Your task to perform on an android device: What's on my calendar tomorrow? Image 0: 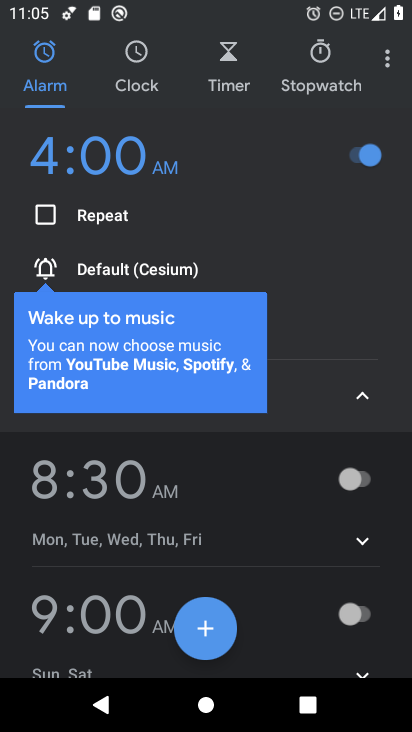
Step 0: press home button
Your task to perform on an android device: What's on my calendar tomorrow? Image 1: 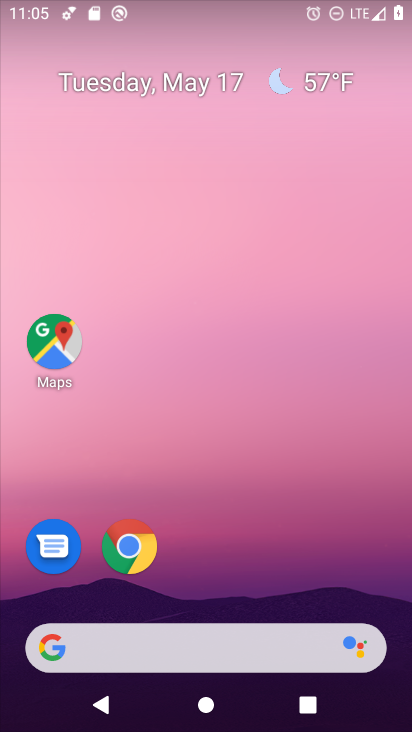
Step 1: drag from (260, 571) to (260, 0)
Your task to perform on an android device: What's on my calendar tomorrow? Image 2: 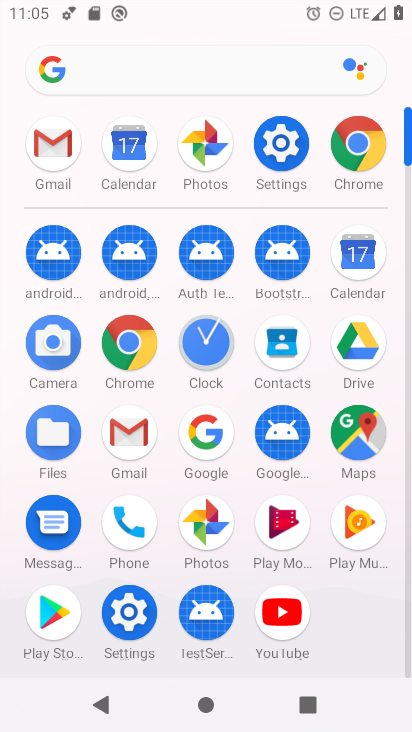
Step 2: click (116, 151)
Your task to perform on an android device: What's on my calendar tomorrow? Image 3: 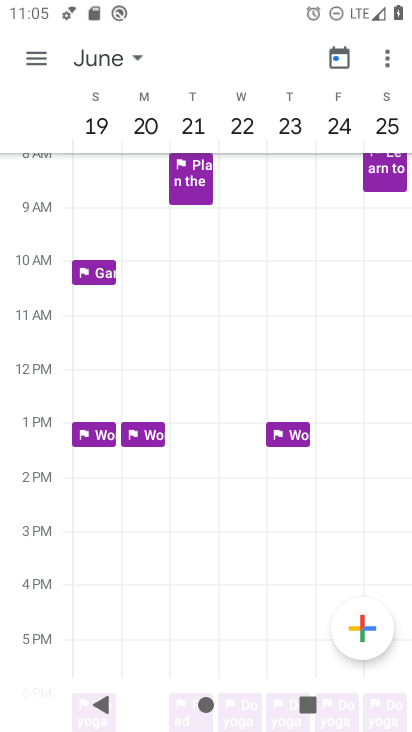
Step 3: click (346, 72)
Your task to perform on an android device: What's on my calendar tomorrow? Image 4: 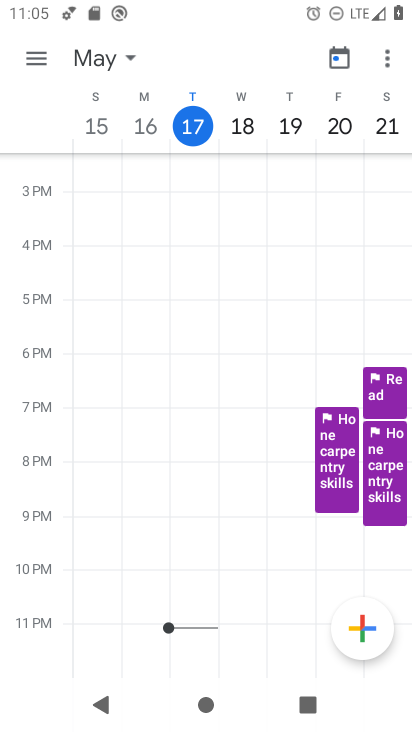
Step 4: click (236, 124)
Your task to perform on an android device: What's on my calendar tomorrow? Image 5: 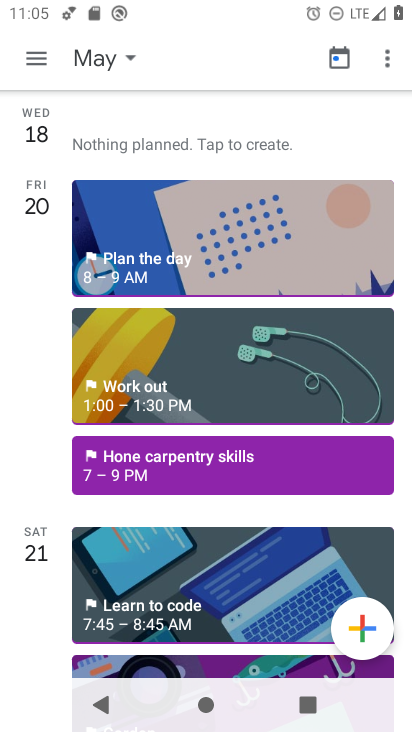
Step 5: click (130, 141)
Your task to perform on an android device: What's on my calendar tomorrow? Image 6: 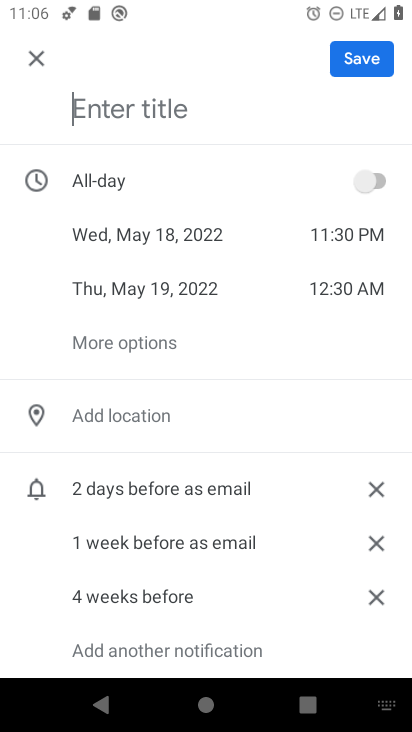
Step 6: task complete